Your task to perform on an android device: When is my next meeting? Image 0: 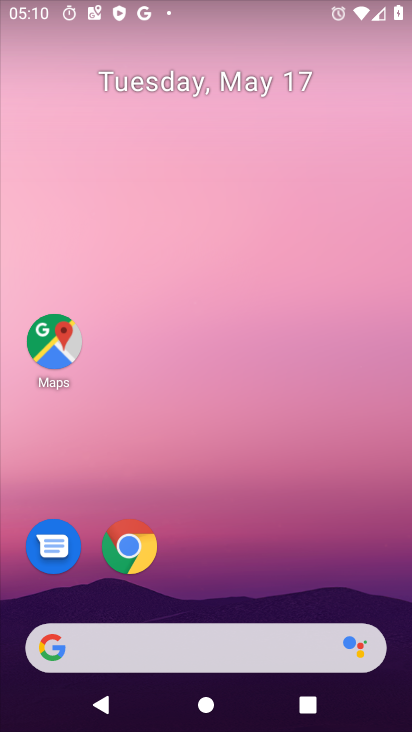
Step 0: drag from (388, 633) to (399, 336)
Your task to perform on an android device: When is my next meeting? Image 1: 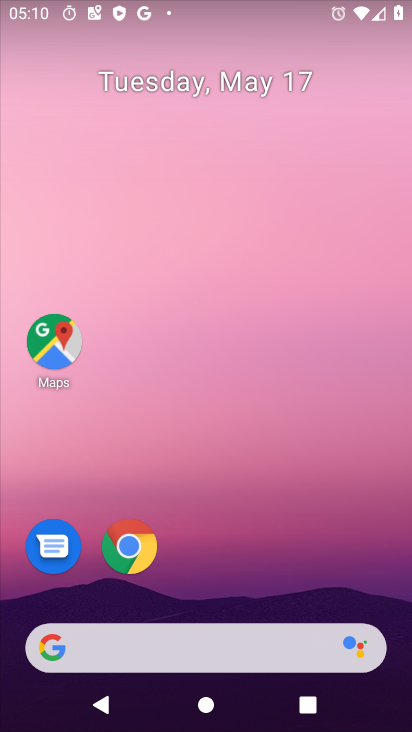
Step 1: click (382, 228)
Your task to perform on an android device: When is my next meeting? Image 2: 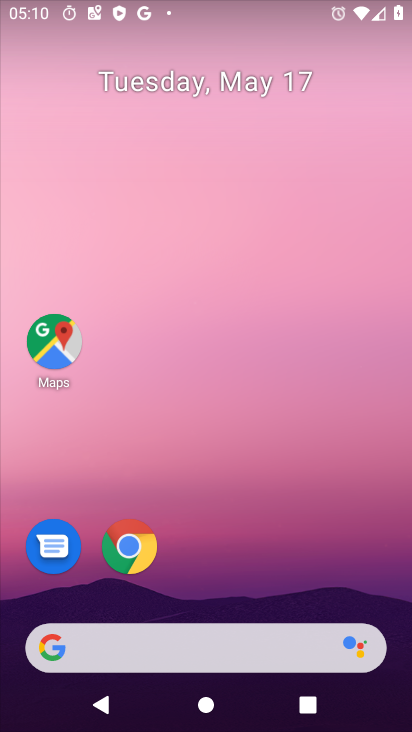
Step 2: drag from (390, 666) to (405, 254)
Your task to perform on an android device: When is my next meeting? Image 3: 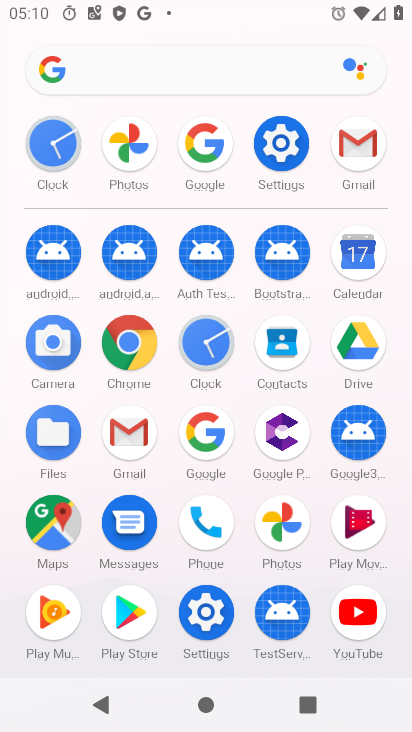
Step 3: click (289, 149)
Your task to perform on an android device: When is my next meeting? Image 4: 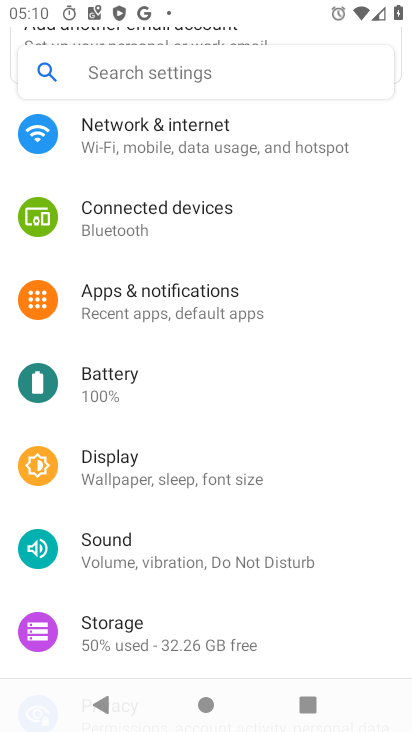
Step 4: press home button
Your task to perform on an android device: When is my next meeting? Image 5: 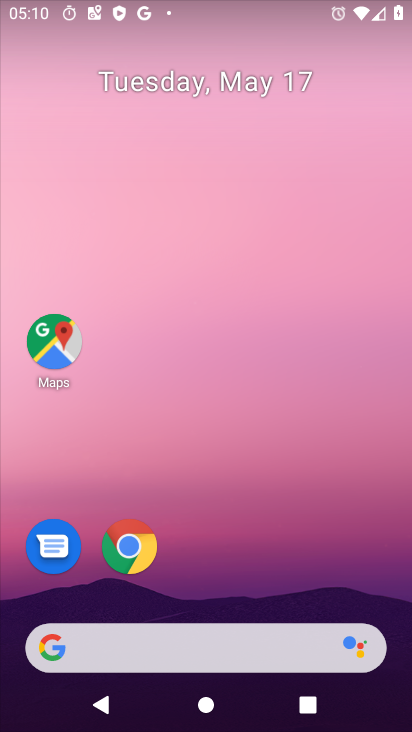
Step 5: drag from (384, 541) to (359, 313)
Your task to perform on an android device: When is my next meeting? Image 6: 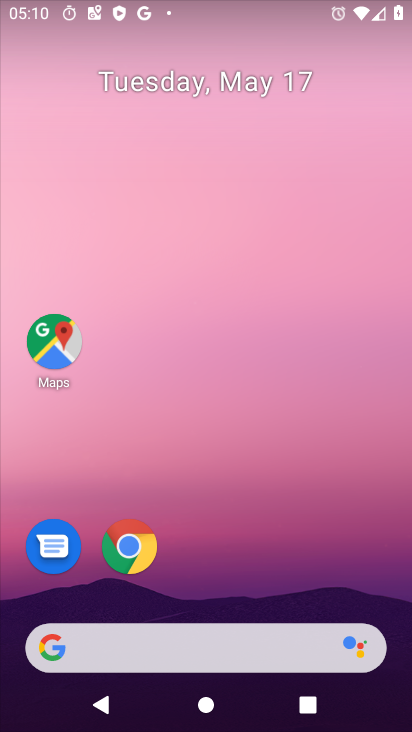
Step 6: drag from (398, 686) to (398, 263)
Your task to perform on an android device: When is my next meeting? Image 7: 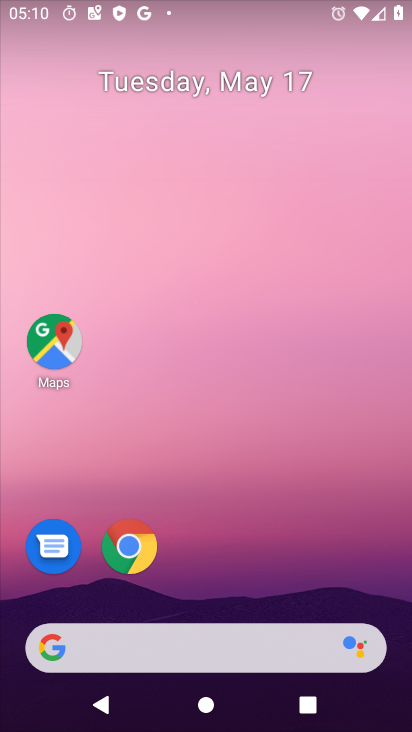
Step 7: drag from (396, 688) to (343, 360)
Your task to perform on an android device: When is my next meeting? Image 8: 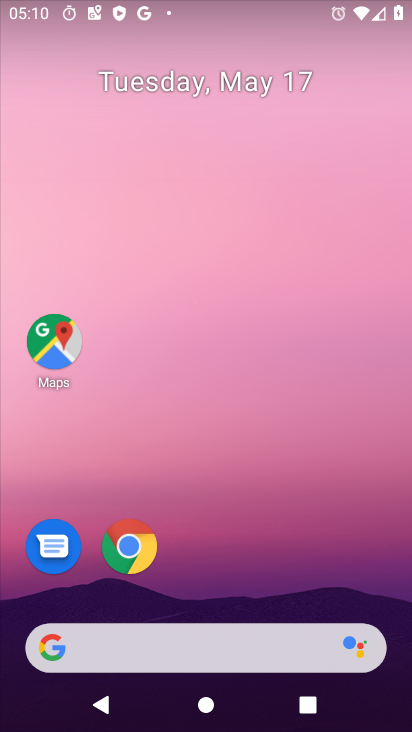
Step 8: drag from (401, 670) to (405, 392)
Your task to perform on an android device: When is my next meeting? Image 9: 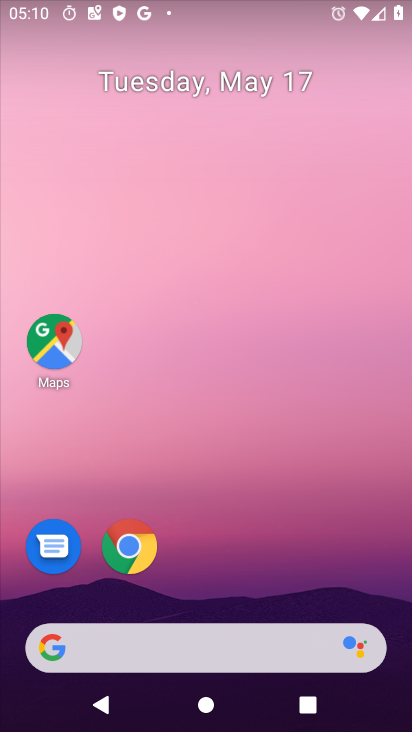
Step 9: drag from (407, 575) to (398, 284)
Your task to perform on an android device: When is my next meeting? Image 10: 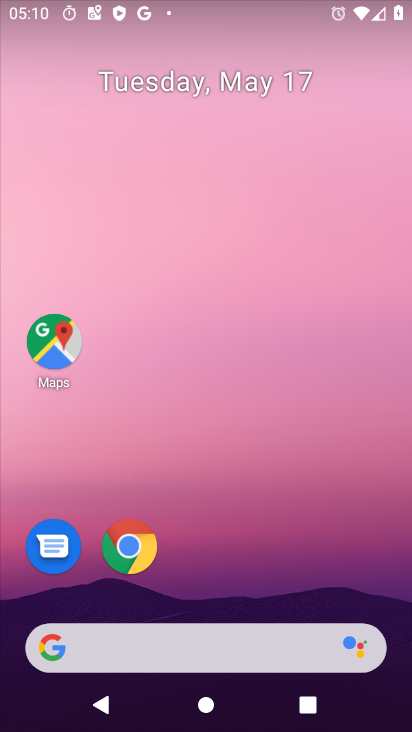
Step 10: drag from (388, 701) to (357, 200)
Your task to perform on an android device: When is my next meeting? Image 11: 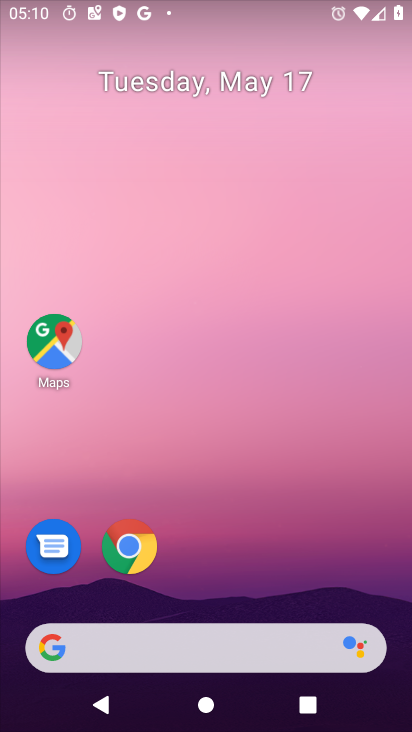
Step 11: drag from (388, 625) to (367, 177)
Your task to perform on an android device: When is my next meeting? Image 12: 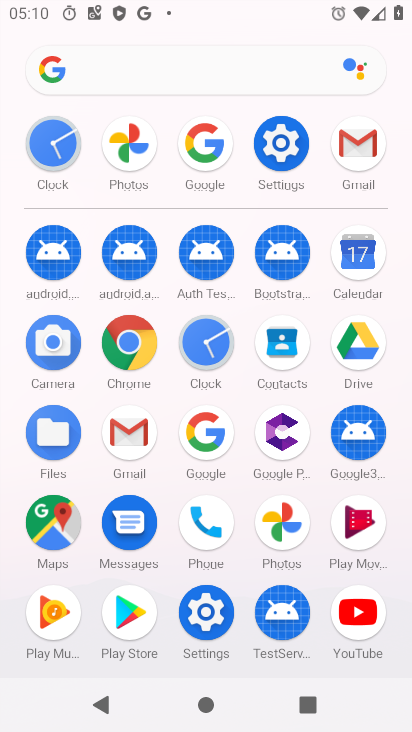
Step 12: click (206, 353)
Your task to perform on an android device: When is my next meeting? Image 13: 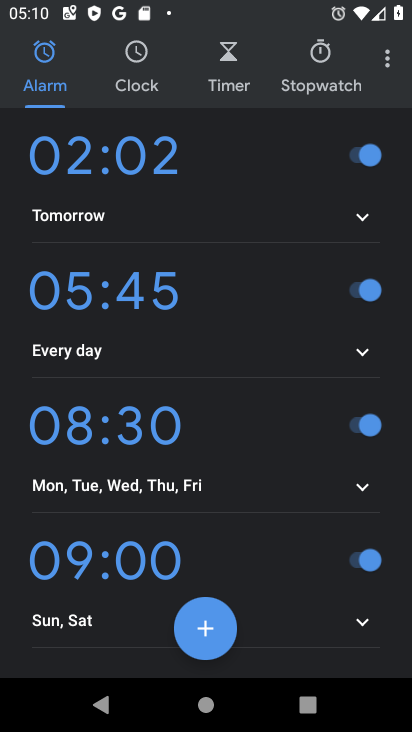
Step 13: press home button
Your task to perform on an android device: When is my next meeting? Image 14: 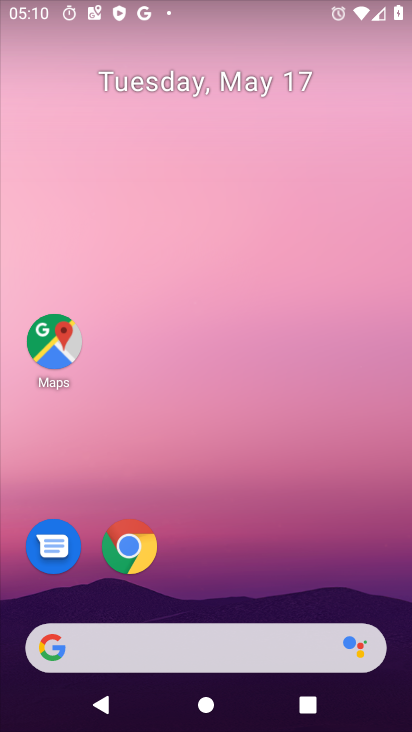
Step 14: drag from (381, 489) to (374, 328)
Your task to perform on an android device: When is my next meeting? Image 15: 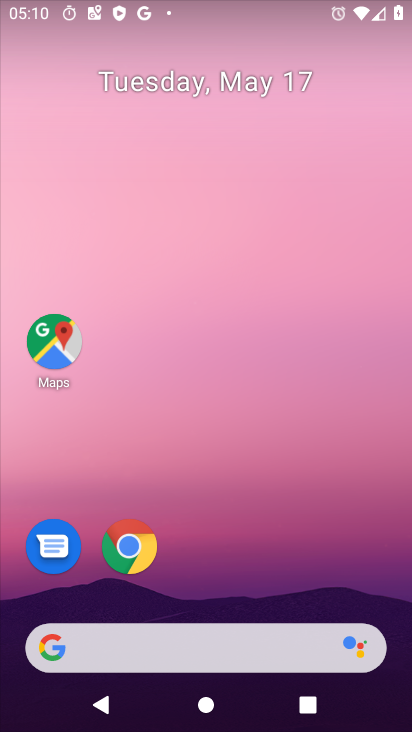
Step 15: drag from (401, 676) to (362, 232)
Your task to perform on an android device: When is my next meeting? Image 16: 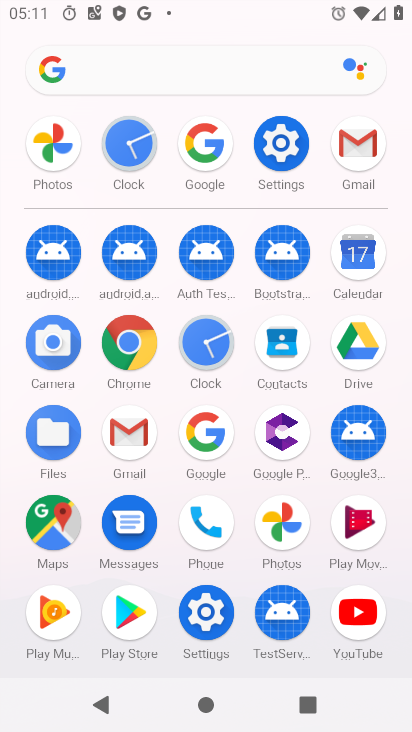
Step 16: click (354, 248)
Your task to perform on an android device: When is my next meeting? Image 17: 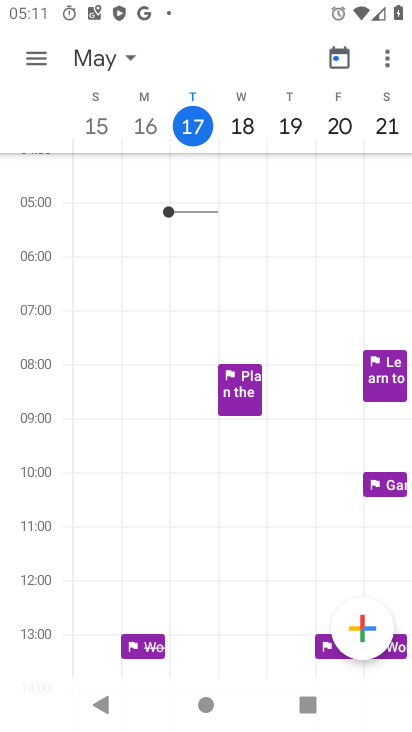
Step 17: task complete